Your task to perform on an android device: change text size in settings app Image 0: 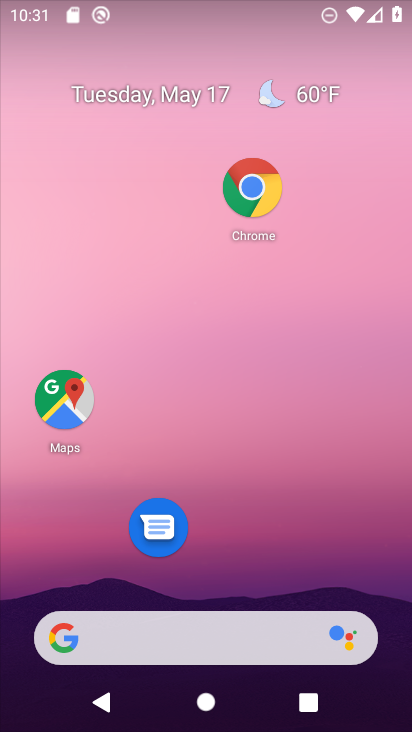
Step 0: drag from (245, 559) to (312, 88)
Your task to perform on an android device: change text size in settings app Image 1: 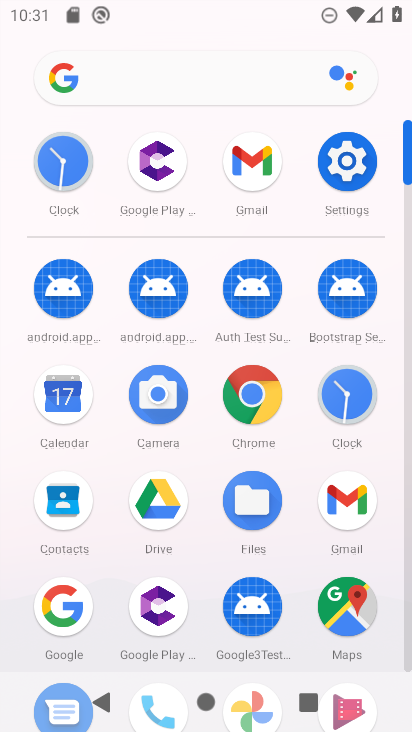
Step 1: click (336, 200)
Your task to perform on an android device: change text size in settings app Image 2: 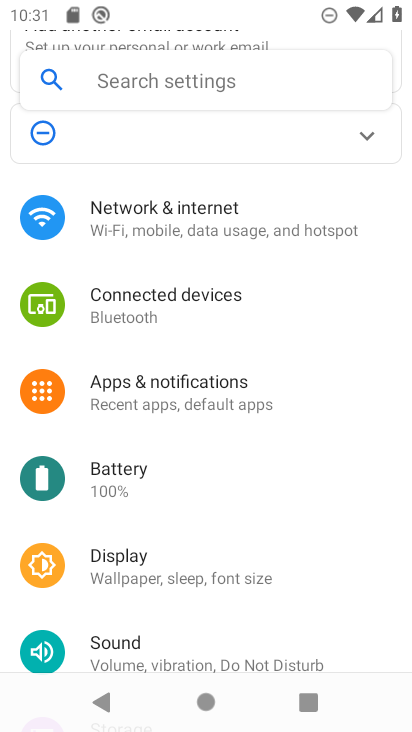
Step 2: drag from (183, 604) to (198, 432)
Your task to perform on an android device: change text size in settings app Image 3: 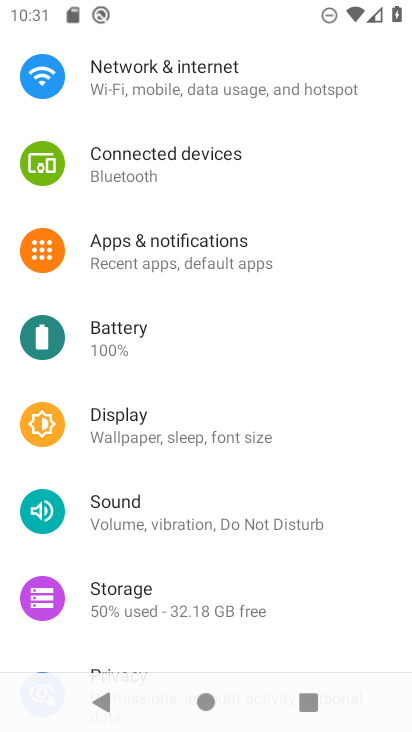
Step 3: click (198, 444)
Your task to perform on an android device: change text size in settings app Image 4: 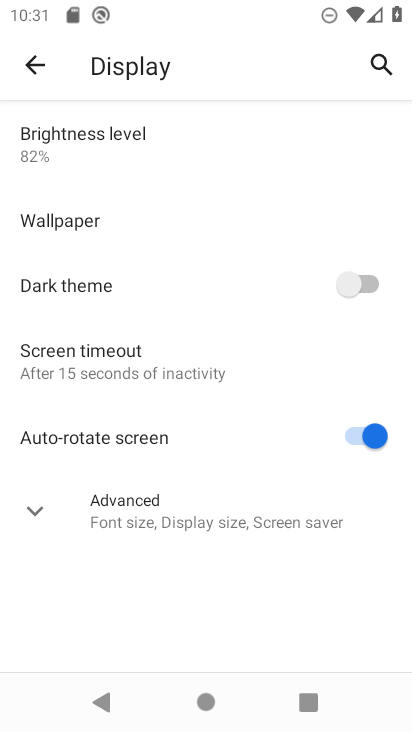
Step 4: click (292, 504)
Your task to perform on an android device: change text size in settings app Image 5: 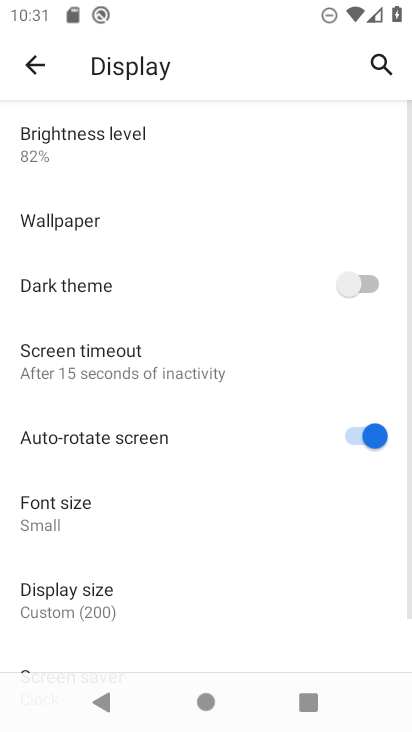
Step 5: click (171, 529)
Your task to perform on an android device: change text size in settings app Image 6: 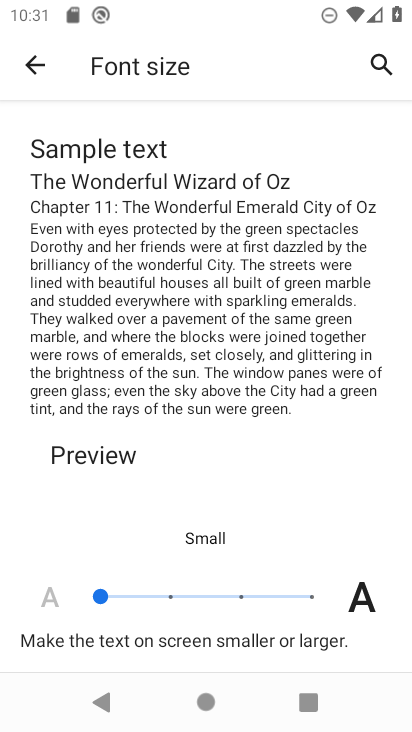
Step 6: task complete